Your task to perform on an android device: delete the emails in spam in the gmail app Image 0: 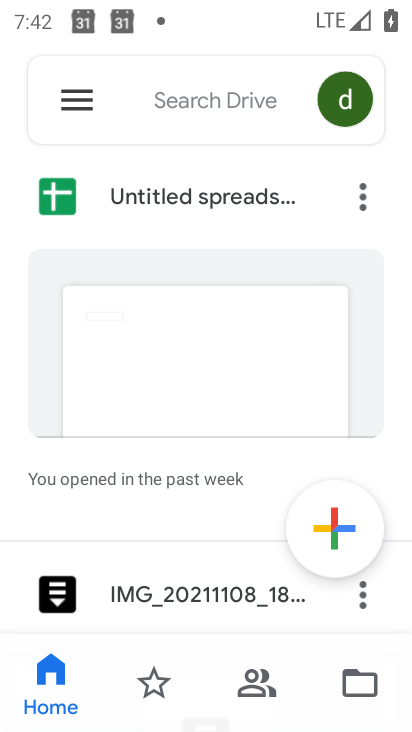
Step 0: press home button
Your task to perform on an android device: delete the emails in spam in the gmail app Image 1: 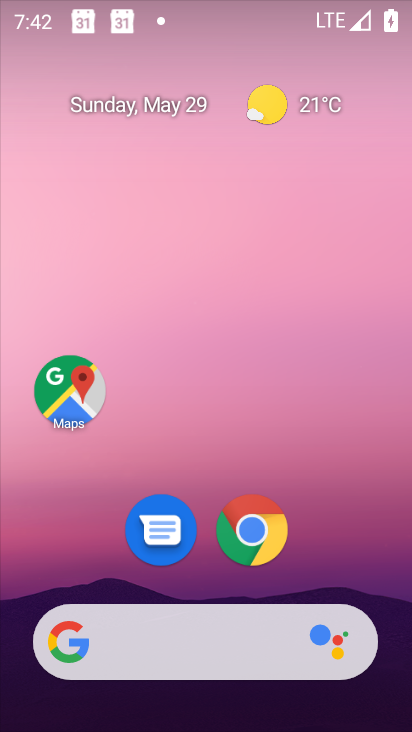
Step 1: drag from (277, 658) to (258, 49)
Your task to perform on an android device: delete the emails in spam in the gmail app Image 2: 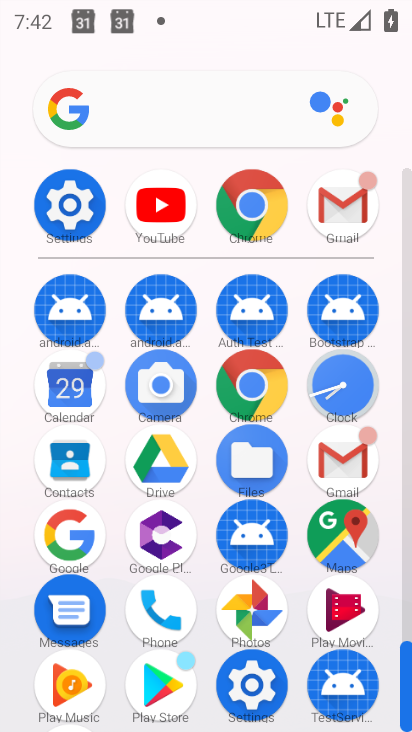
Step 2: click (344, 212)
Your task to perform on an android device: delete the emails in spam in the gmail app Image 3: 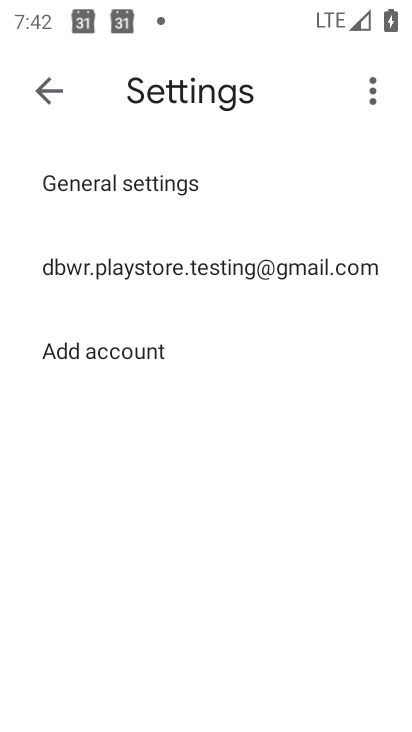
Step 3: click (48, 97)
Your task to perform on an android device: delete the emails in spam in the gmail app Image 4: 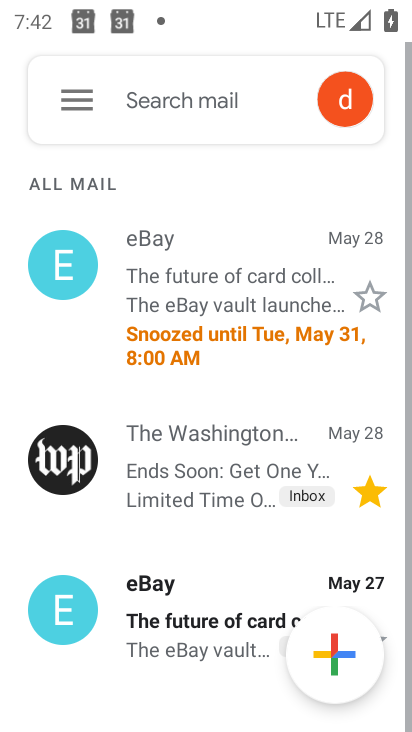
Step 4: click (47, 97)
Your task to perform on an android device: delete the emails in spam in the gmail app Image 5: 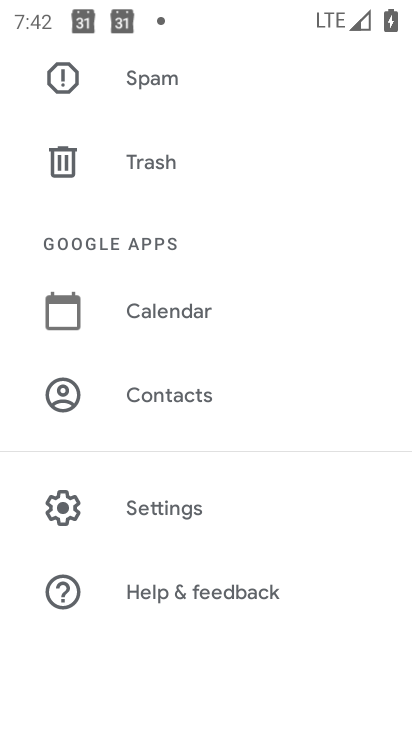
Step 5: click (158, 82)
Your task to perform on an android device: delete the emails in spam in the gmail app Image 6: 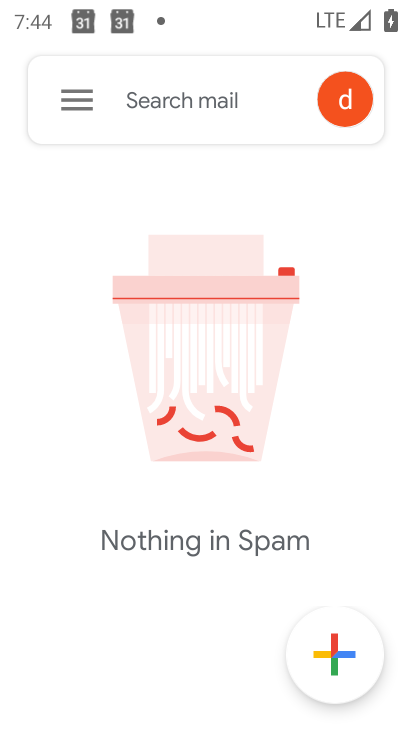
Step 6: task complete